Your task to perform on an android device: Open Google Chrome and open the bookmarks view Image 0: 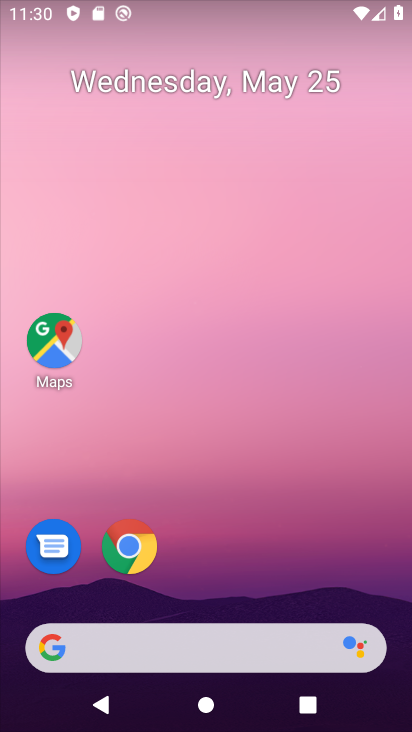
Step 0: click (123, 550)
Your task to perform on an android device: Open Google Chrome and open the bookmarks view Image 1: 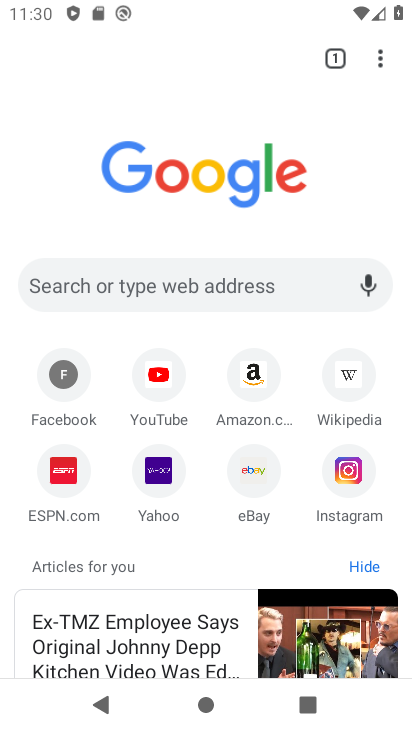
Step 1: click (380, 57)
Your task to perform on an android device: Open Google Chrome and open the bookmarks view Image 2: 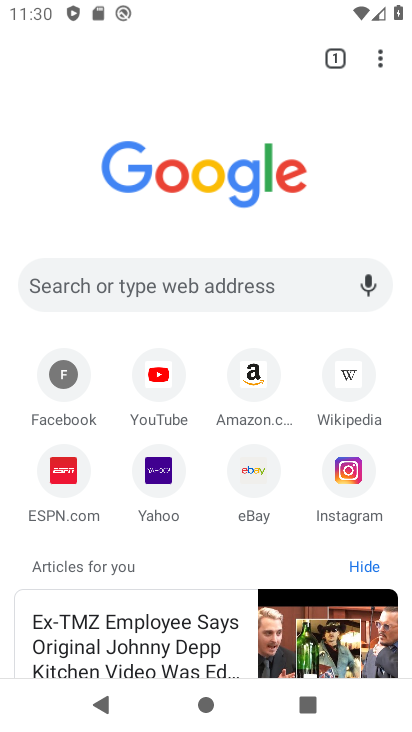
Step 2: click (374, 56)
Your task to perform on an android device: Open Google Chrome and open the bookmarks view Image 3: 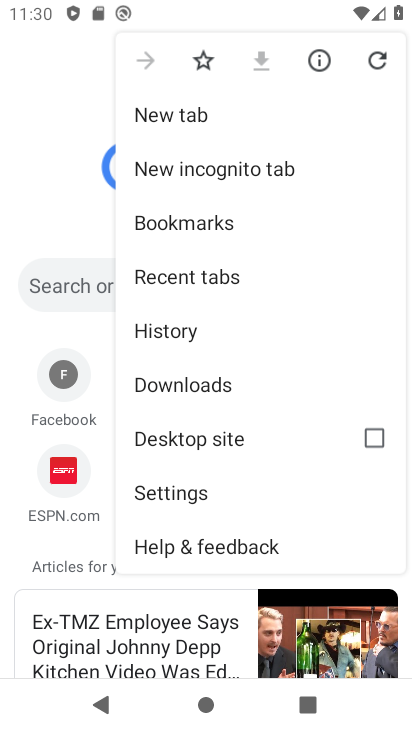
Step 3: click (157, 207)
Your task to perform on an android device: Open Google Chrome and open the bookmarks view Image 4: 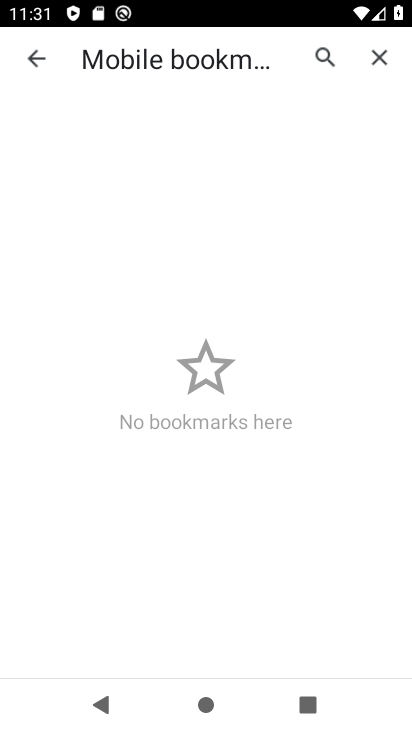
Step 4: task complete